Your task to perform on an android device: show emergency info Image 0: 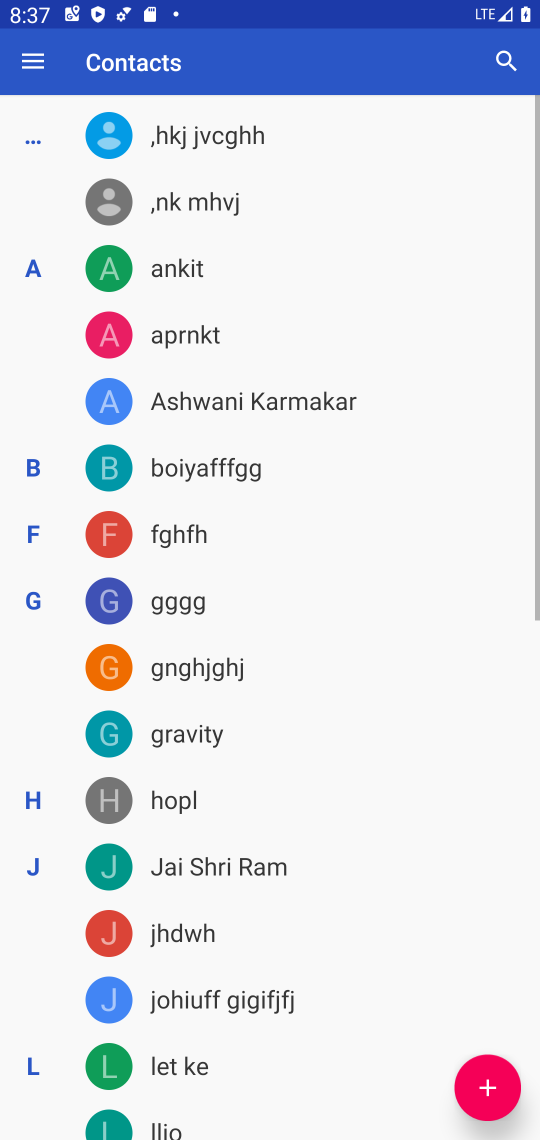
Step 0: press home button
Your task to perform on an android device: show emergency info Image 1: 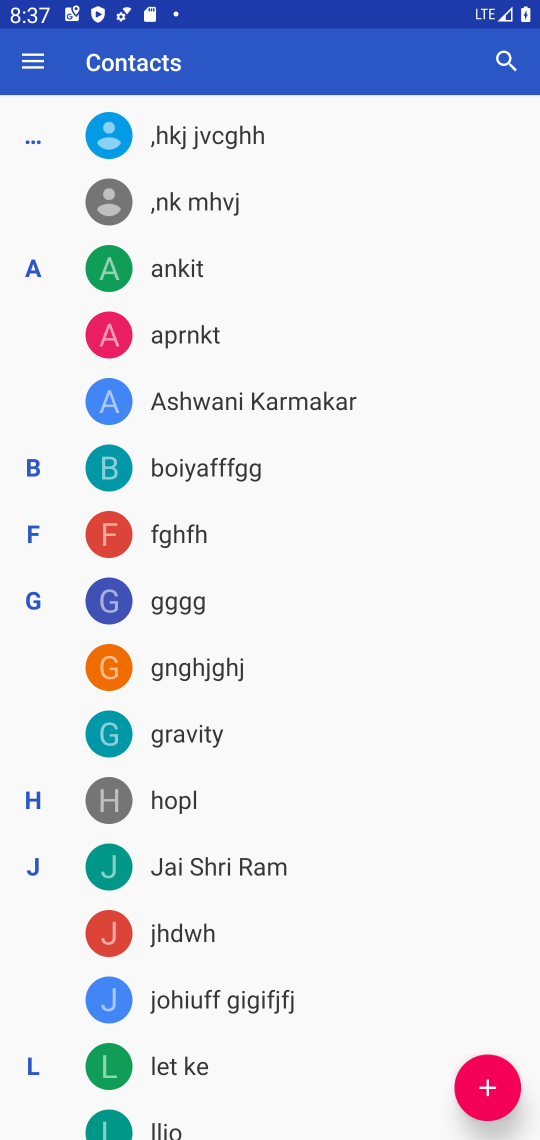
Step 1: drag from (509, 1026) to (101, 5)
Your task to perform on an android device: show emergency info Image 2: 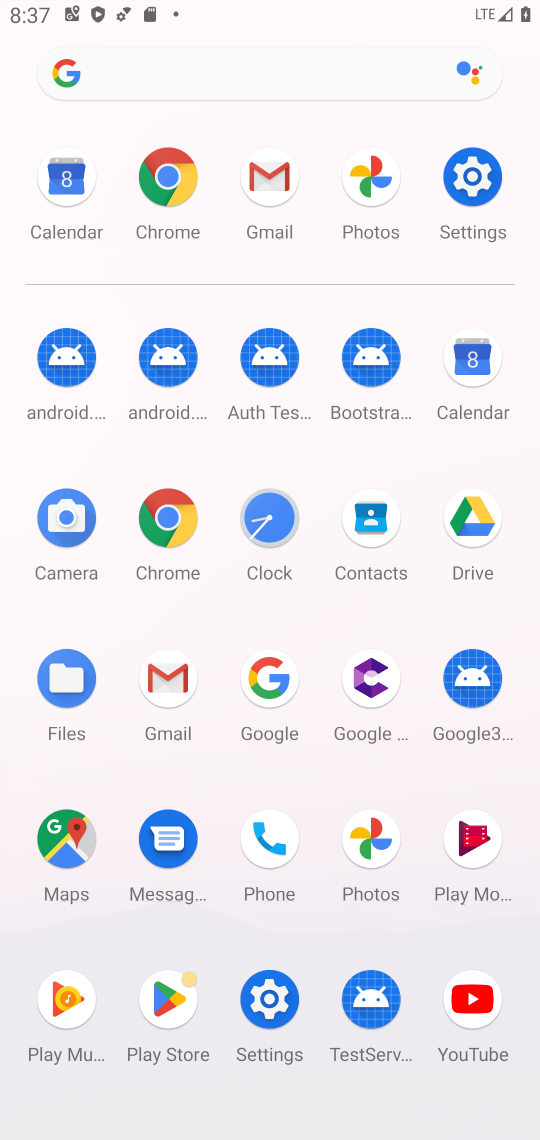
Step 2: click (277, 985)
Your task to perform on an android device: show emergency info Image 3: 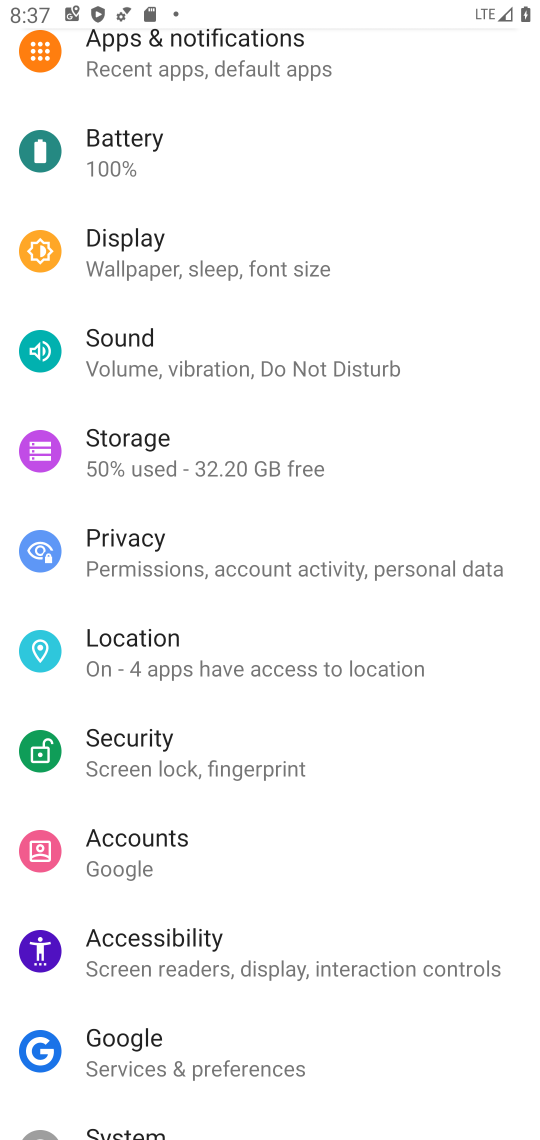
Step 3: drag from (277, 985) to (270, 5)
Your task to perform on an android device: show emergency info Image 4: 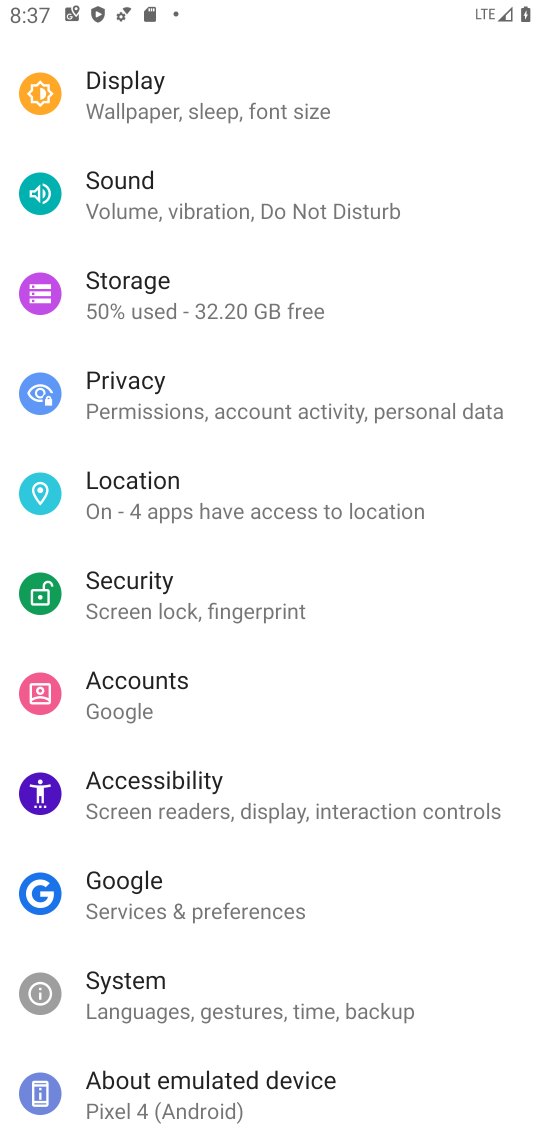
Step 4: click (224, 1077)
Your task to perform on an android device: show emergency info Image 5: 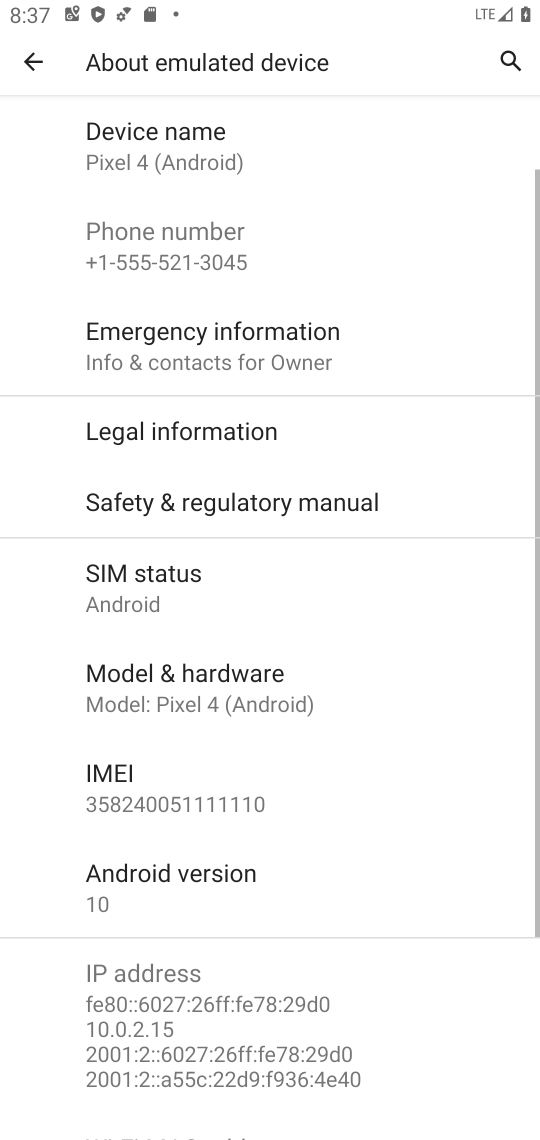
Step 5: click (242, 340)
Your task to perform on an android device: show emergency info Image 6: 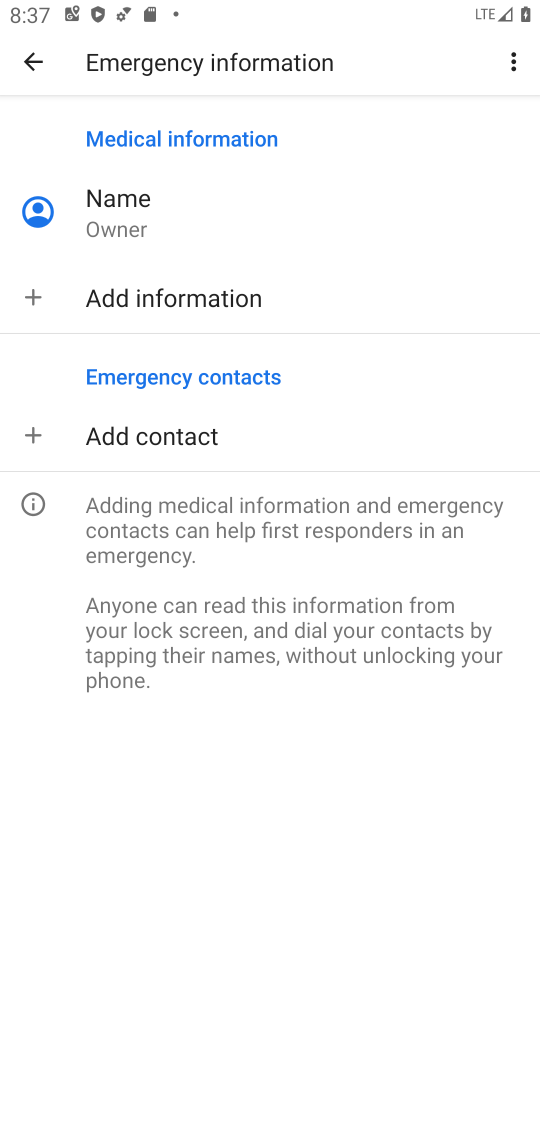
Step 6: task complete